Your task to perform on an android device: Check the news Image 0: 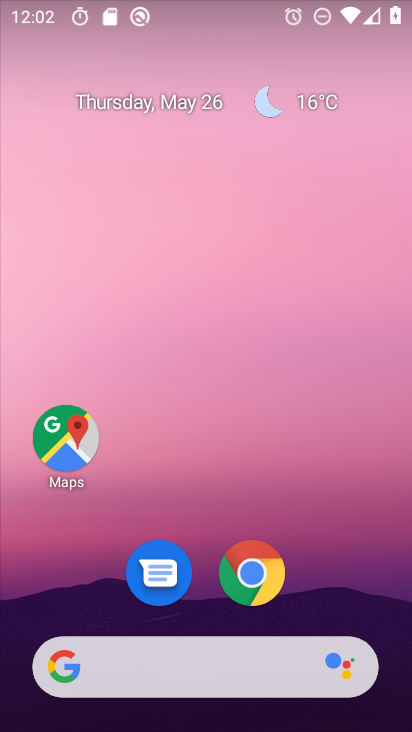
Step 0: click (107, 665)
Your task to perform on an android device: Check the news Image 1: 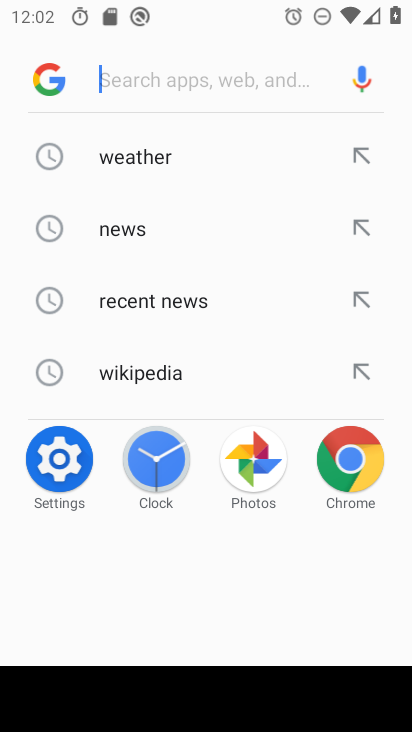
Step 1: click (112, 237)
Your task to perform on an android device: Check the news Image 2: 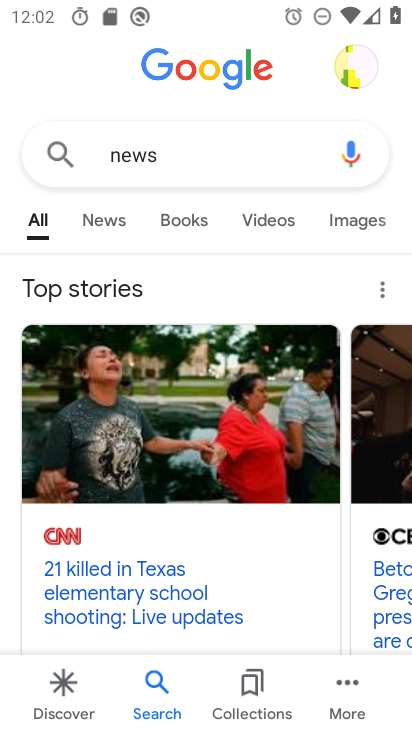
Step 2: click (110, 222)
Your task to perform on an android device: Check the news Image 3: 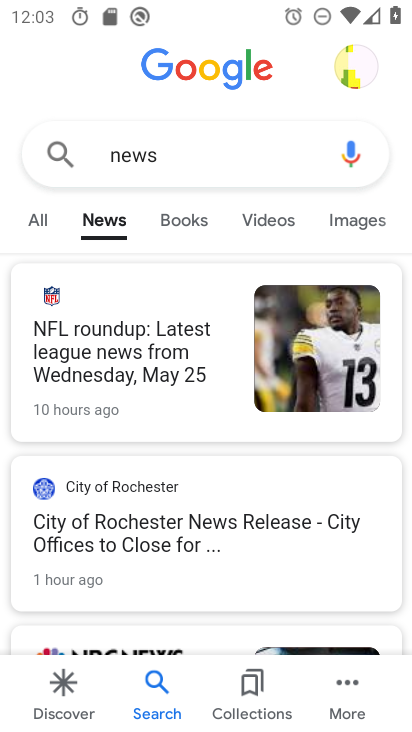
Step 3: task complete